Your task to perform on an android device: change the clock display to show seconds Image 0: 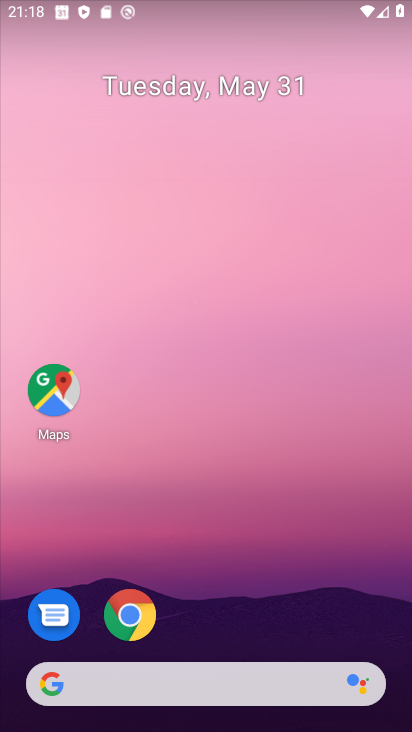
Step 0: press home button
Your task to perform on an android device: change the clock display to show seconds Image 1: 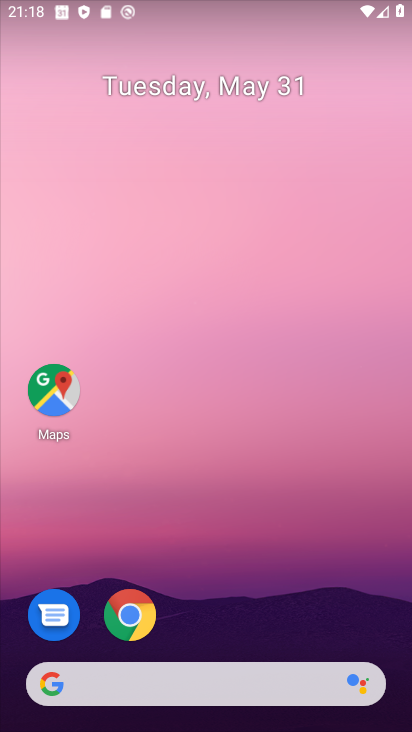
Step 1: press home button
Your task to perform on an android device: change the clock display to show seconds Image 2: 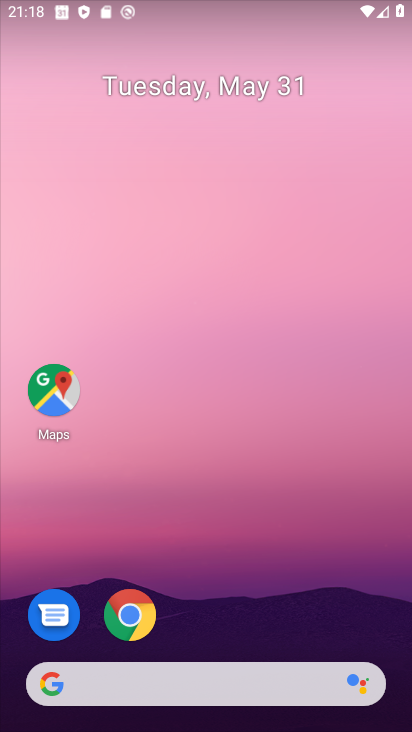
Step 2: drag from (318, 626) to (275, 129)
Your task to perform on an android device: change the clock display to show seconds Image 3: 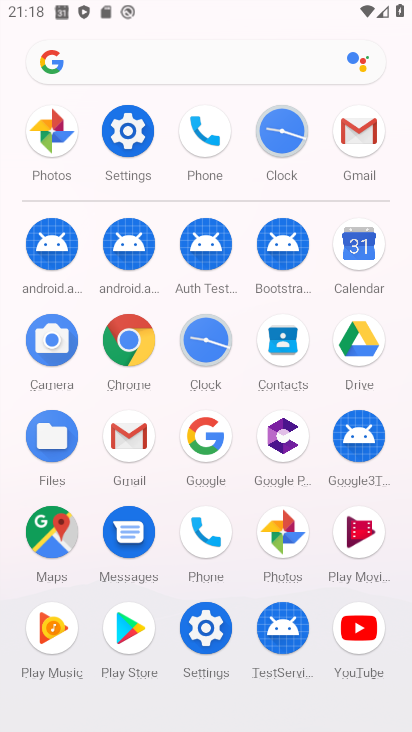
Step 3: click (279, 127)
Your task to perform on an android device: change the clock display to show seconds Image 4: 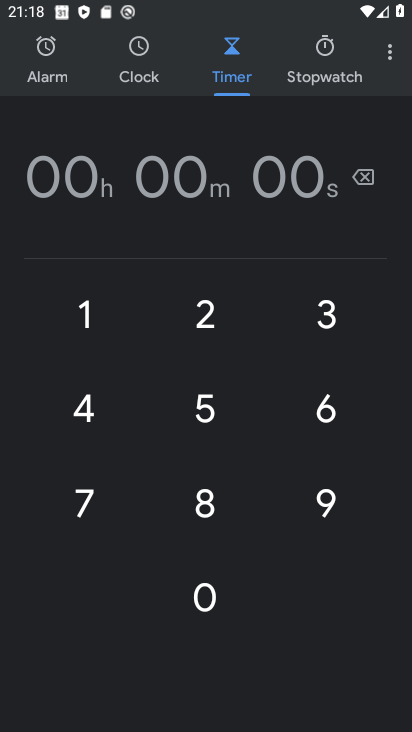
Step 4: click (386, 54)
Your task to perform on an android device: change the clock display to show seconds Image 5: 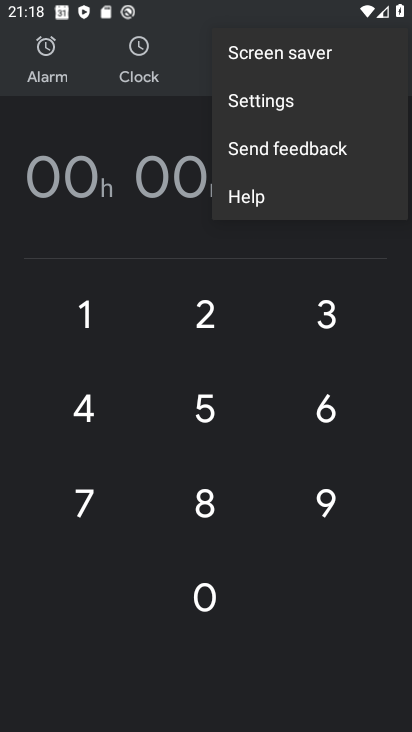
Step 5: click (265, 104)
Your task to perform on an android device: change the clock display to show seconds Image 6: 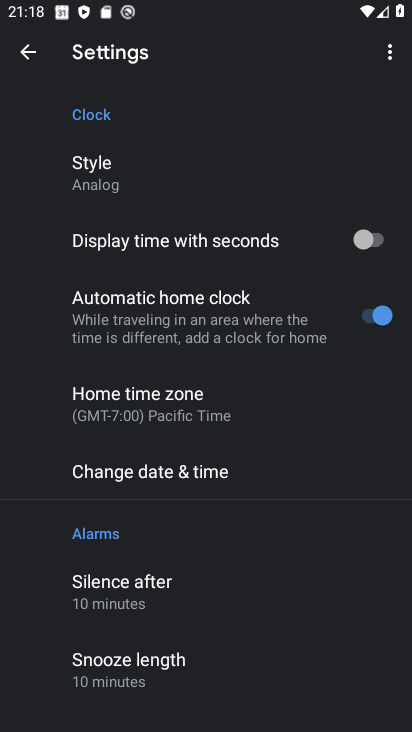
Step 6: click (373, 244)
Your task to perform on an android device: change the clock display to show seconds Image 7: 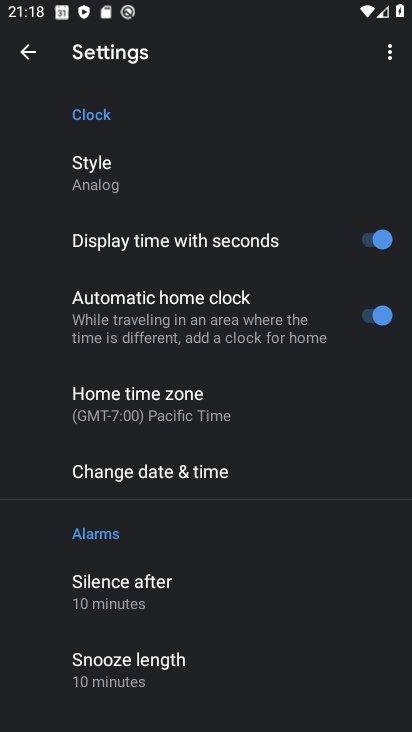
Step 7: task complete